Your task to perform on an android device: Go to accessibility settings Image 0: 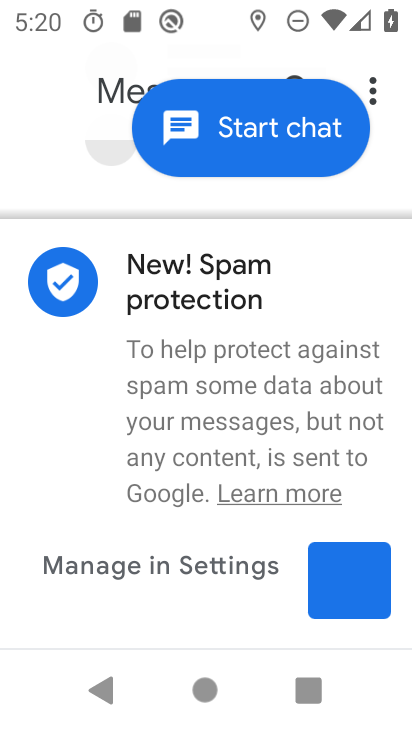
Step 0: press home button
Your task to perform on an android device: Go to accessibility settings Image 1: 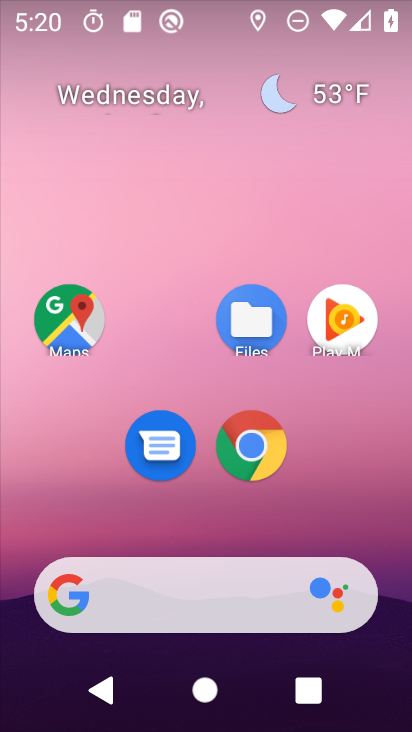
Step 1: drag from (309, 512) to (278, 53)
Your task to perform on an android device: Go to accessibility settings Image 2: 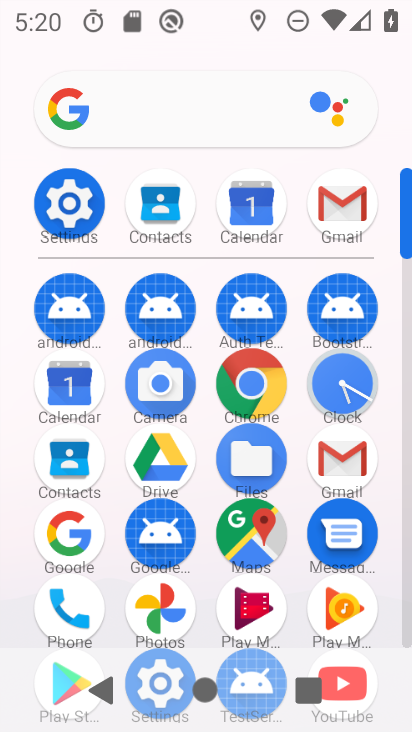
Step 2: click (59, 198)
Your task to perform on an android device: Go to accessibility settings Image 3: 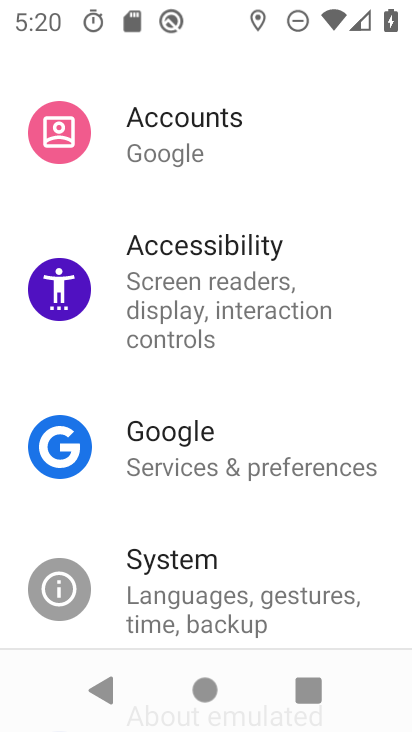
Step 3: click (147, 279)
Your task to perform on an android device: Go to accessibility settings Image 4: 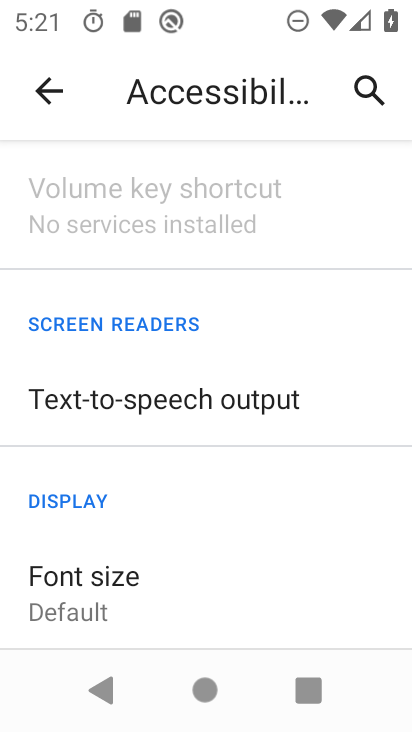
Step 4: task complete